Your task to perform on an android device: Add rayovac triple a to the cart on target, then select checkout. Image 0: 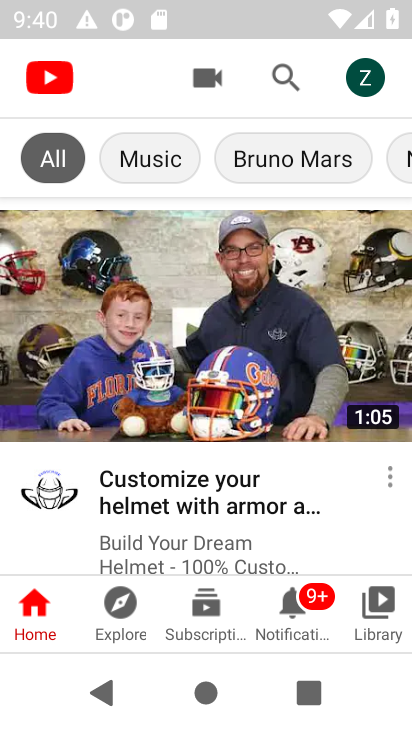
Step 0: task complete